Your task to perform on an android device: change the clock display to analog Image 0: 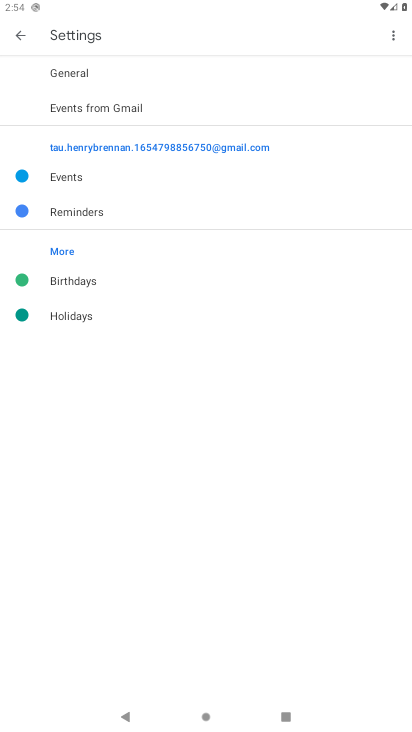
Step 0: press home button
Your task to perform on an android device: change the clock display to analog Image 1: 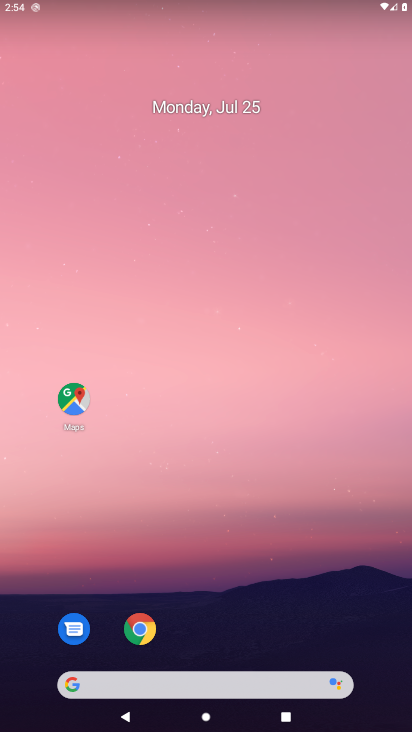
Step 1: click (132, 630)
Your task to perform on an android device: change the clock display to analog Image 2: 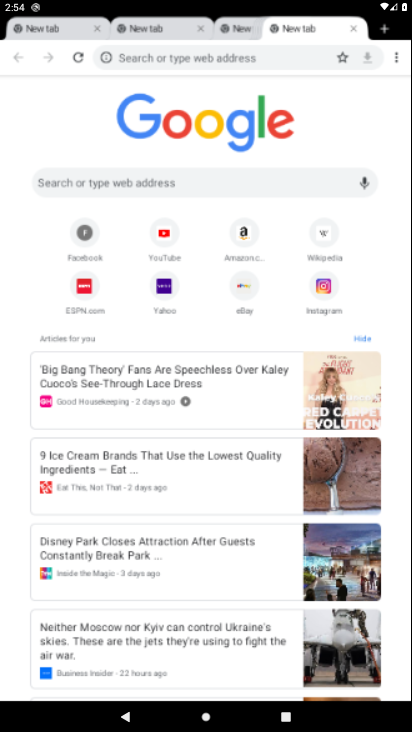
Step 2: click (138, 633)
Your task to perform on an android device: change the clock display to analog Image 3: 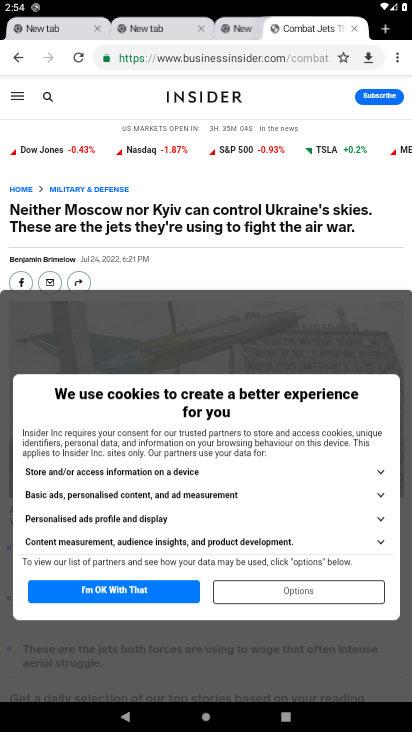
Step 3: click (340, 58)
Your task to perform on an android device: change the clock display to analog Image 4: 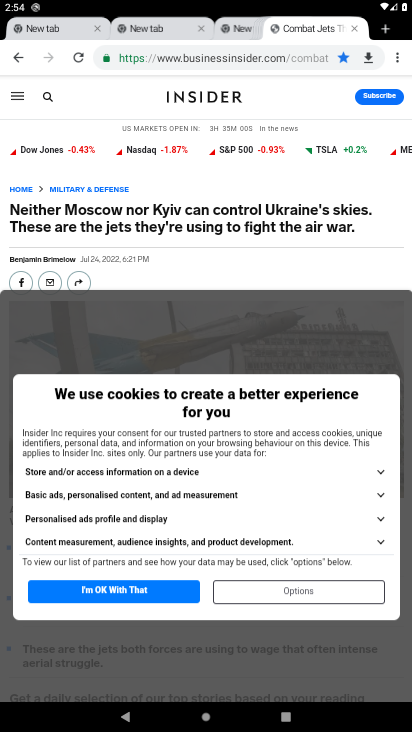
Step 4: task complete